Your task to perform on an android device: Open network settings Image 0: 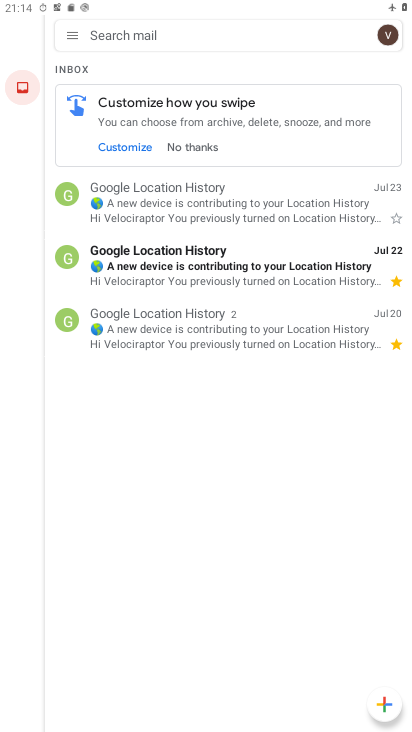
Step 0: press home button
Your task to perform on an android device: Open network settings Image 1: 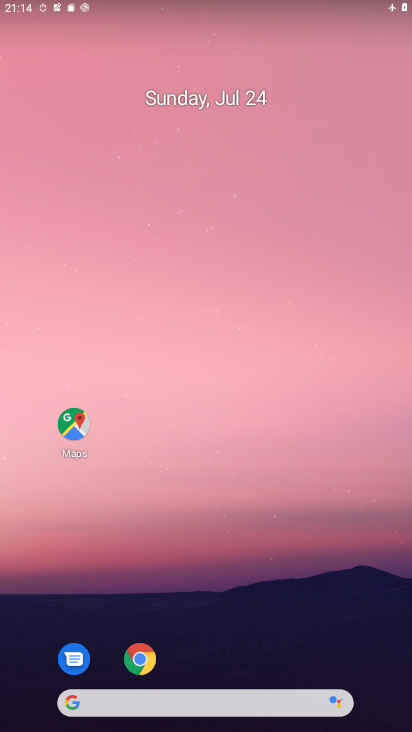
Step 1: drag from (214, 724) to (224, 154)
Your task to perform on an android device: Open network settings Image 2: 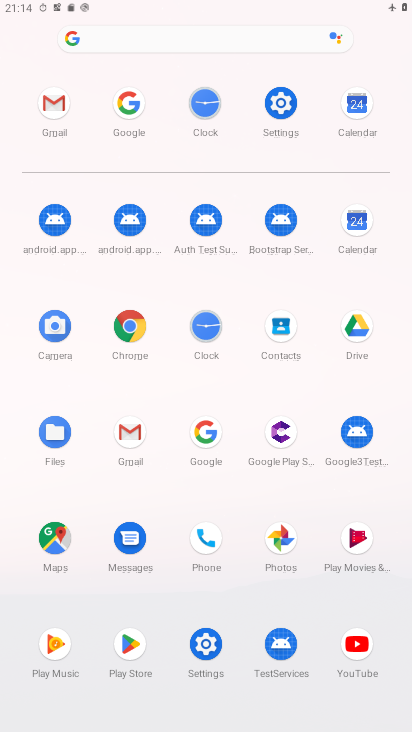
Step 2: click (282, 109)
Your task to perform on an android device: Open network settings Image 3: 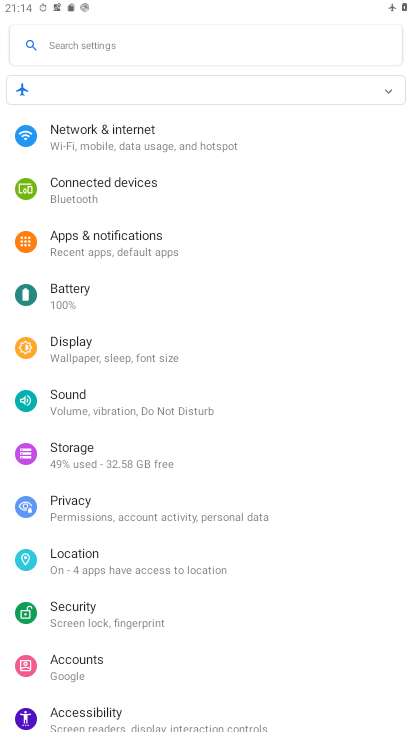
Step 3: click (95, 135)
Your task to perform on an android device: Open network settings Image 4: 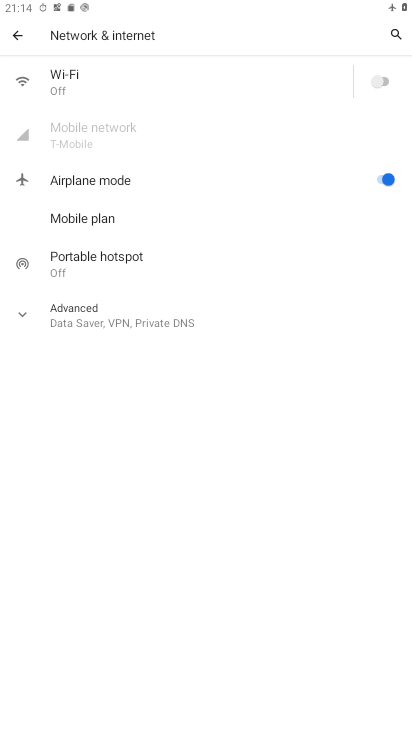
Step 4: task complete